Your task to perform on an android device: change keyboard looks Image 0: 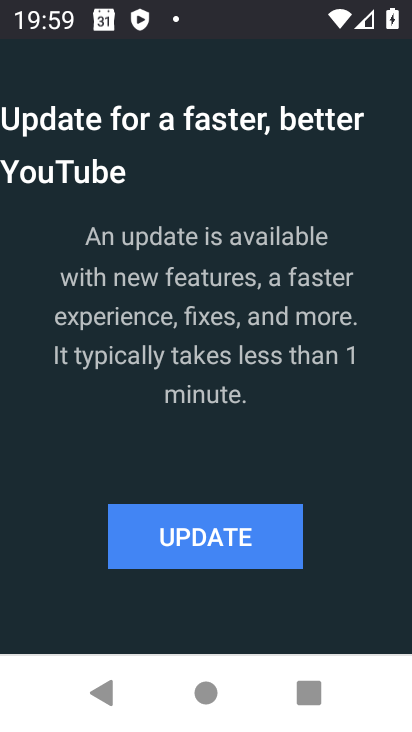
Step 0: press home button
Your task to perform on an android device: change keyboard looks Image 1: 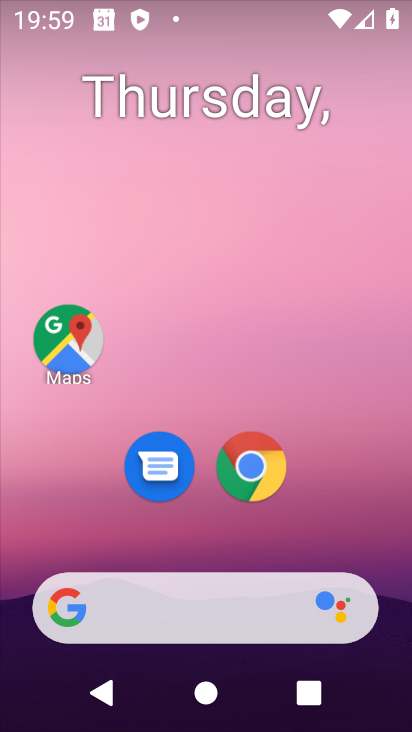
Step 1: drag from (349, 558) to (322, 74)
Your task to perform on an android device: change keyboard looks Image 2: 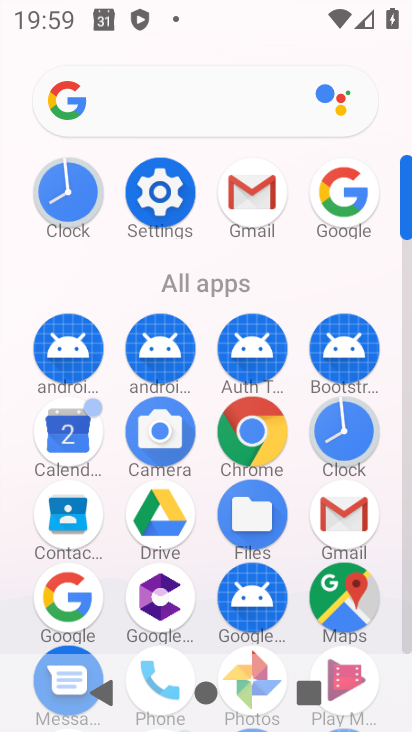
Step 2: click (174, 180)
Your task to perform on an android device: change keyboard looks Image 3: 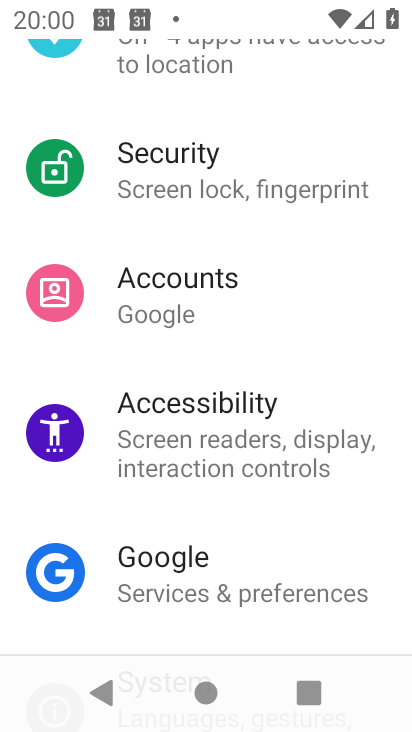
Step 3: drag from (343, 603) to (333, 279)
Your task to perform on an android device: change keyboard looks Image 4: 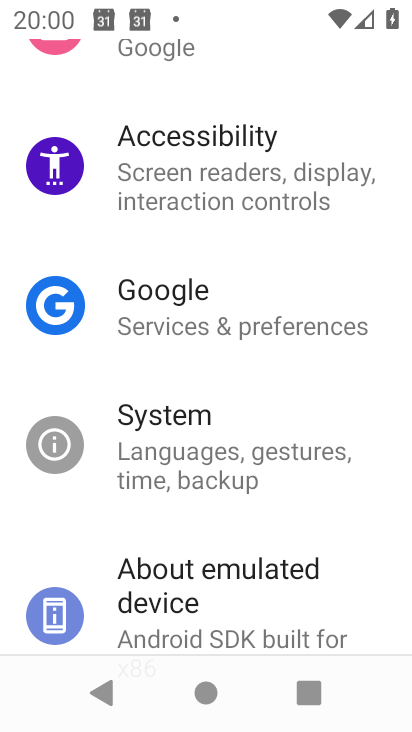
Step 4: click (185, 439)
Your task to perform on an android device: change keyboard looks Image 5: 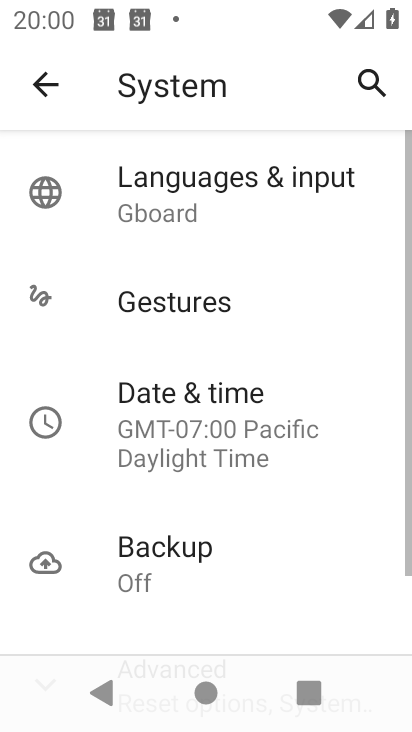
Step 5: click (165, 179)
Your task to perform on an android device: change keyboard looks Image 6: 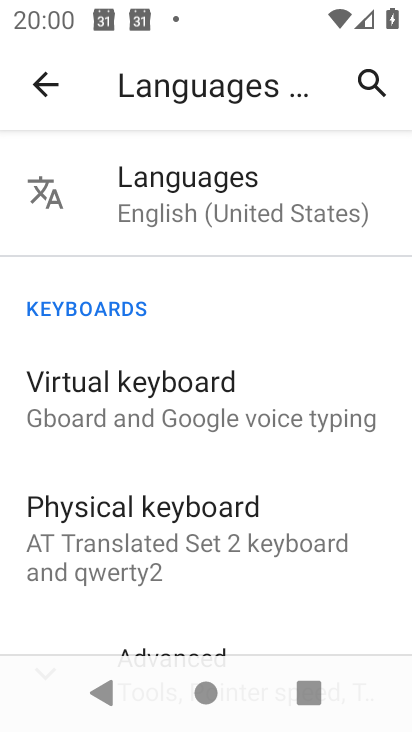
Step 6: click (141, 409)
Your task to perform on an android device: change keyboard looks Image 7: 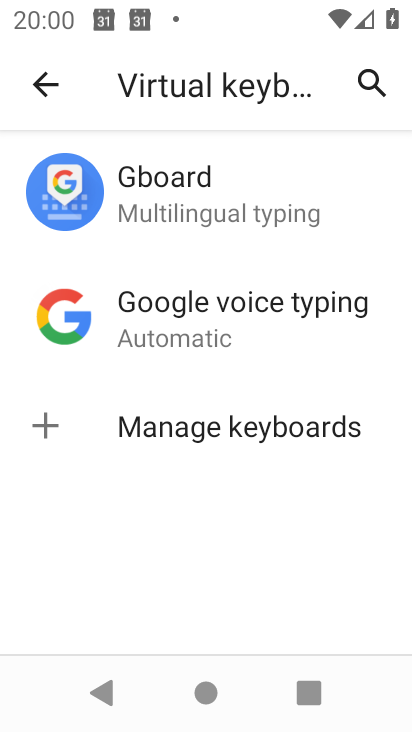
Step 7: click (149, 191)
Your task to perform on an android device: change keyboard looks Image 8: 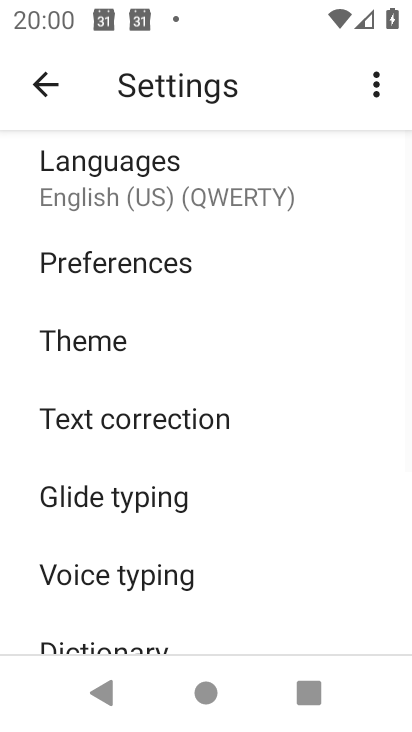
Step 8: click (98, 334)
Your task to perform on an android device: change keyboard looks Image 9: 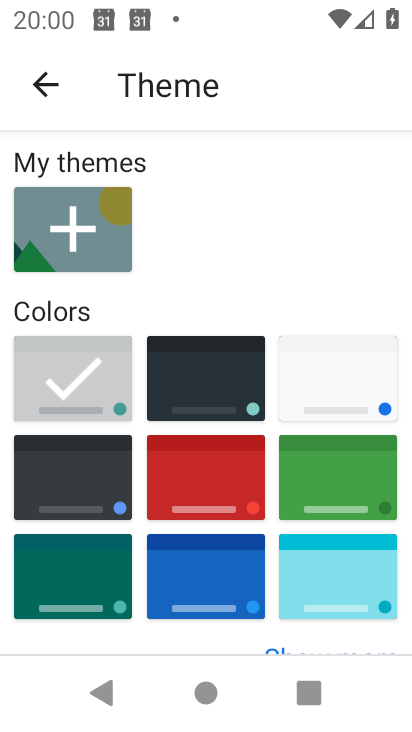
Step 9: click (203, 487)
Your task to perform on an android device: change keyboard looks Image 10: 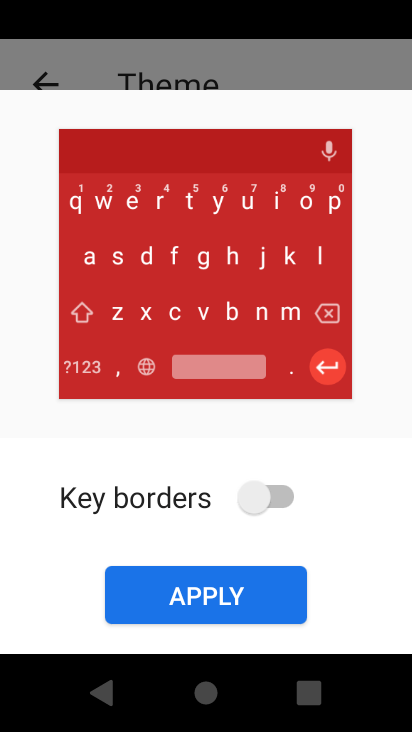
Step 10: click (229, 586)
Your task to perform on an android device: change keyboard looks Image 11: 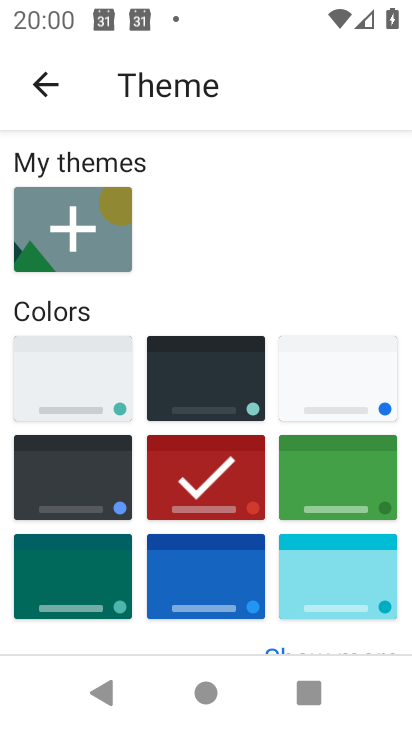
Step 11: task complete